Your task to perform on an android device: open sync settings in chrome Image 0: 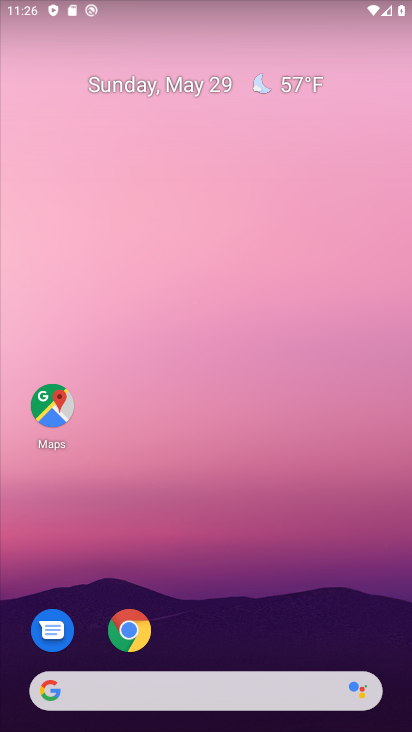
Step 0: press home button
Your task to perform on an android device: open sync settings in chrome Image 1: 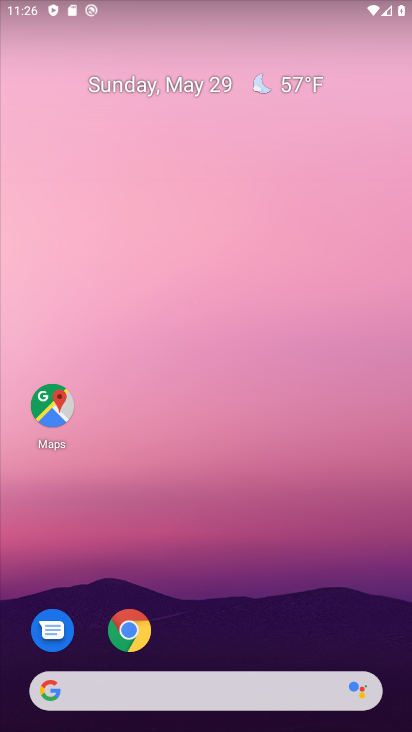
Step 1: drag from (280, 708) to (240, 178)
Your task to perform on an android device: open sync settings in chrome Image 2: 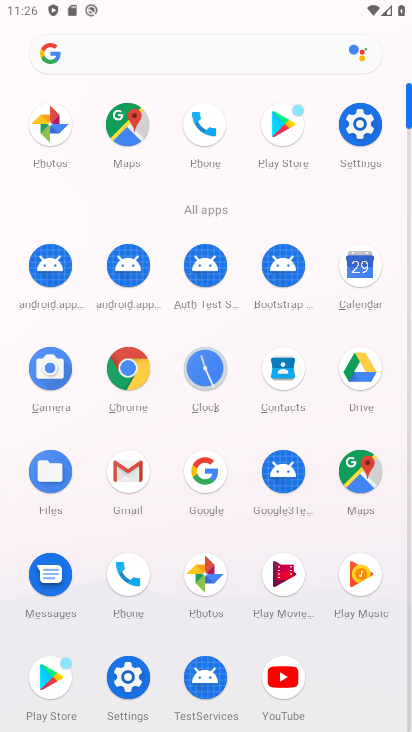
Step 2: click (134, 373)
Your task to perform on an android device: open sync settings in chrome Image 3: 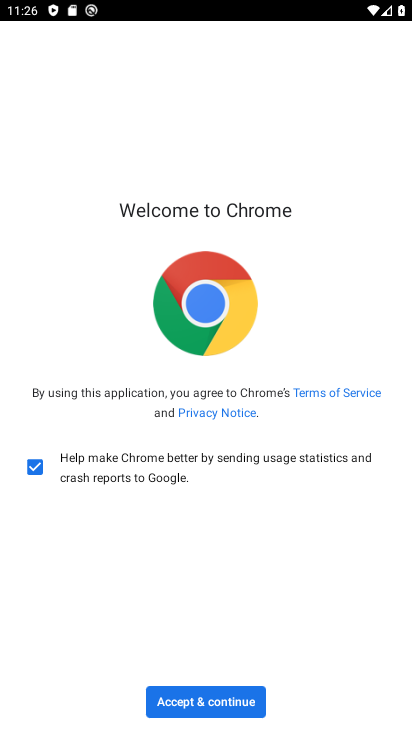
Step 3: click (197, 694)
Your task to perform on an android device: open sync settings in chrome Image 4: 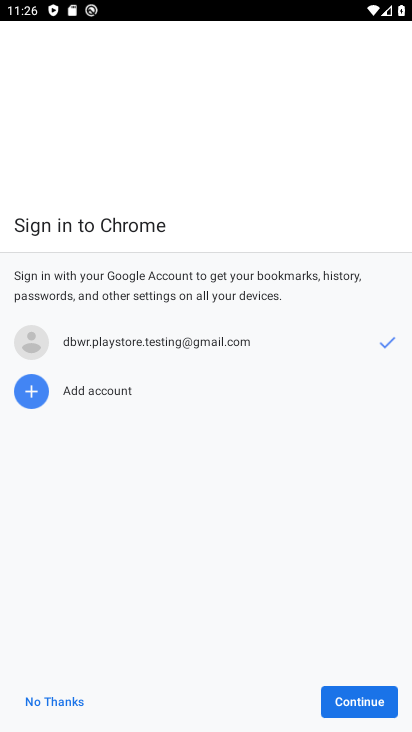
Step 4: click (362, 708)
Your task to perform on an android device: open sync settings in chrome Image 5: 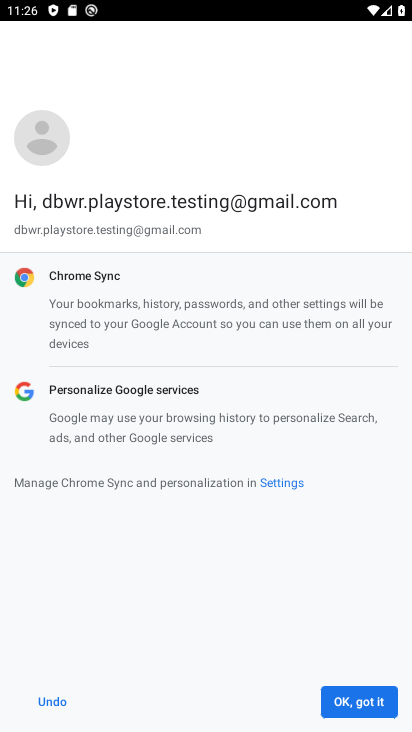
Step 5: click (381, 702)
Your task to perform on an android device: open sync settings in chrome Image 6: 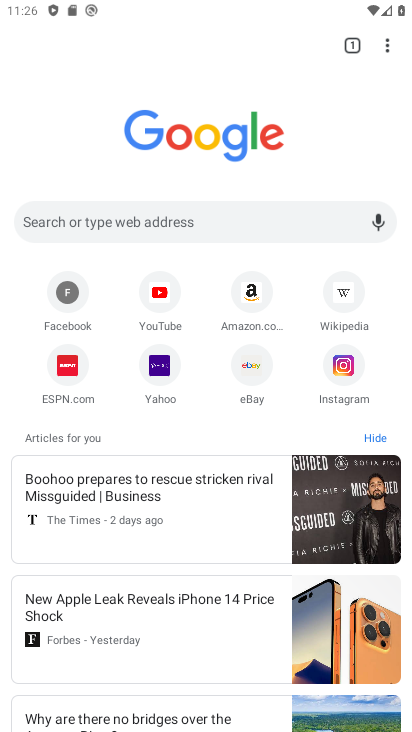
Step 6: click (380, 45)
Your task to perform on an android device: open sync settings in chrome Image 7: 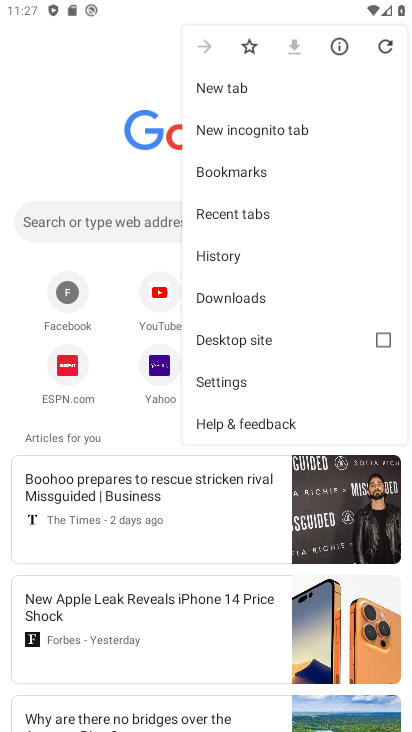
Step 7: click (252, 370)
Your task to perform on an android device: open sync settings in chrome Image 8: 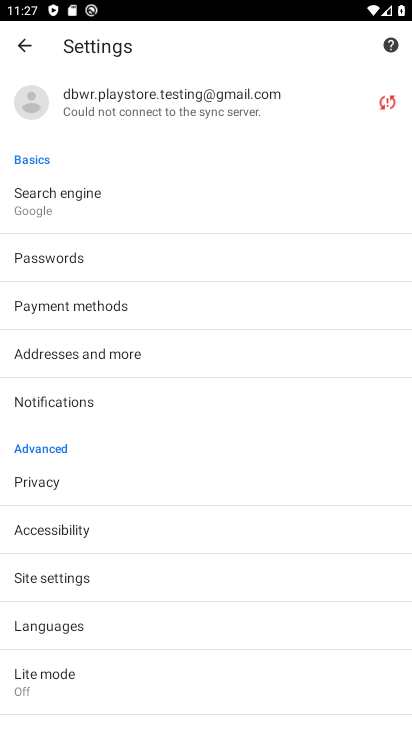
Step 8: click (97, 569)
Your task to perform on an android device: open sync settings in chrome Image 9: 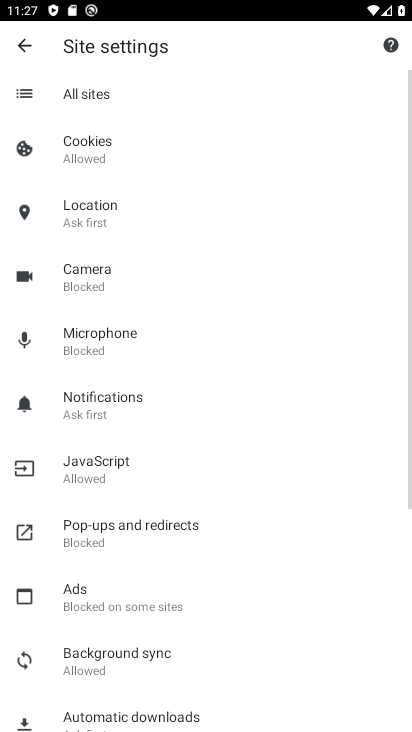
Step 9: drag from (152, 671) to (141, 551)
Your task to perform on an android device: open sync settings in chrome Image 10: 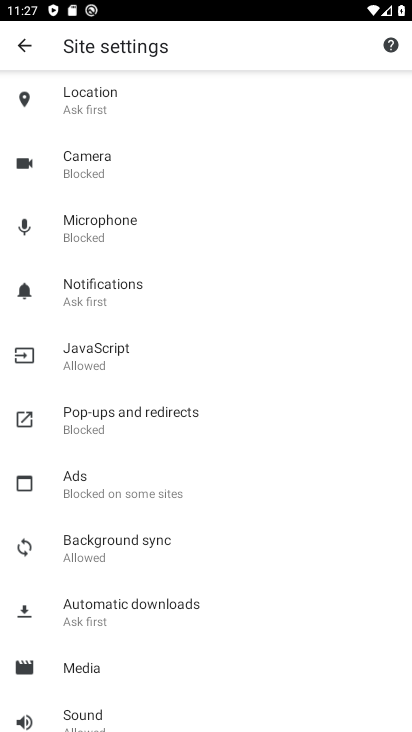
Step 10: click (136, 541)
Your task to perform on an android device: open sync settings in chrome Image 11: 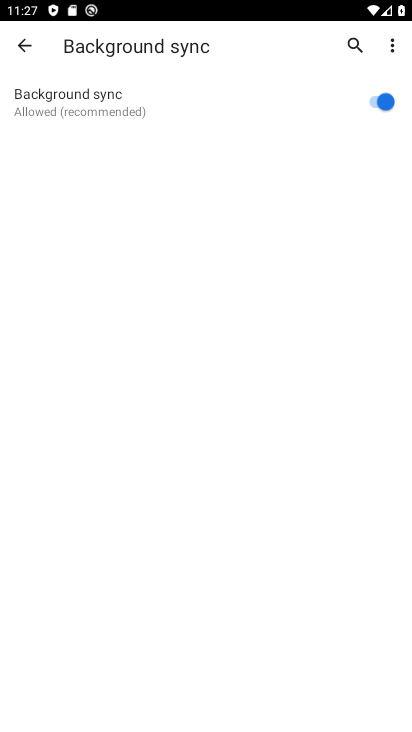
Step 11: task complete